Your task to perform on an android device: Open Google Chrome and open the bookmarks view Image 0: 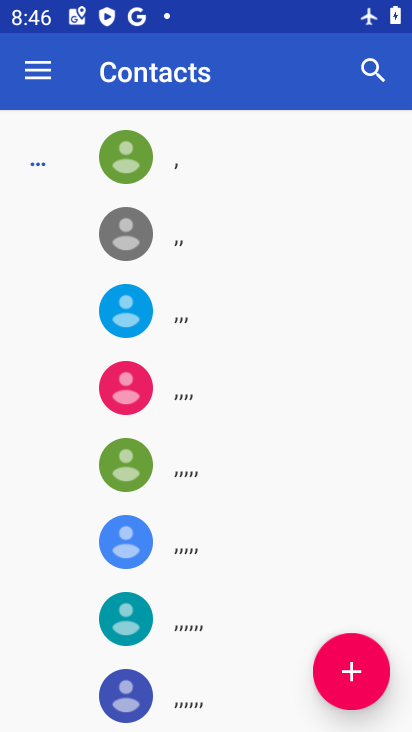
Step 0: press home button
Your task to perform on an android device: Open Google Chrome and open the bookmarks view Image 1: 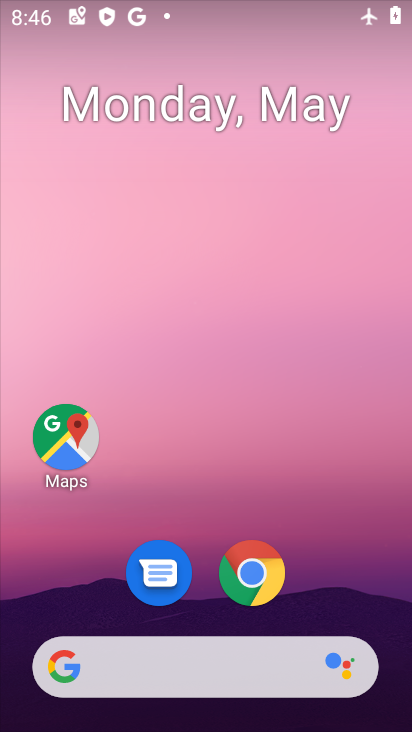
Step 1: click (249, 577)
Your task to perform on an android device: Open Google Chrome and open the bookmarks view Image 2: 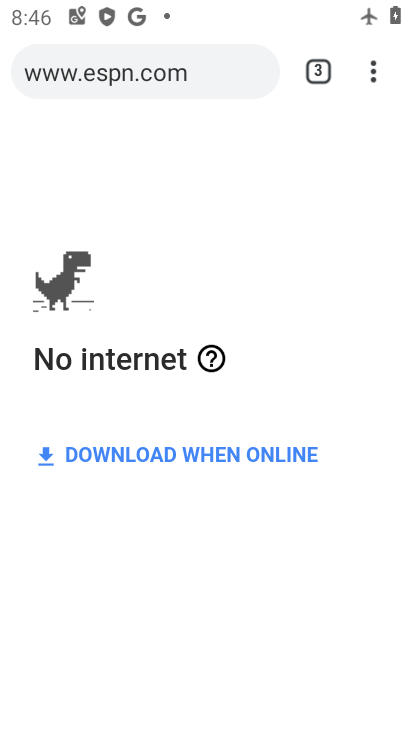
Step 2: press home button
Your task to perform on an android device: Open Google Chrome and open the bookmarks view Image 3: 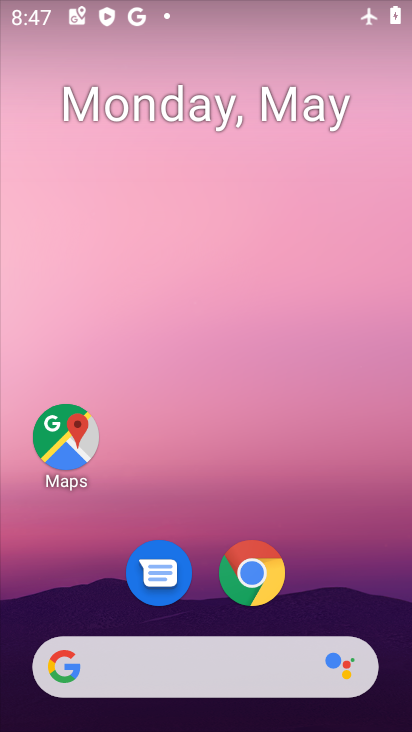
Step 3: click (260, 563)
Your task to perform on an android device: Open Google Chrome and open the bookmarks view Image 4: 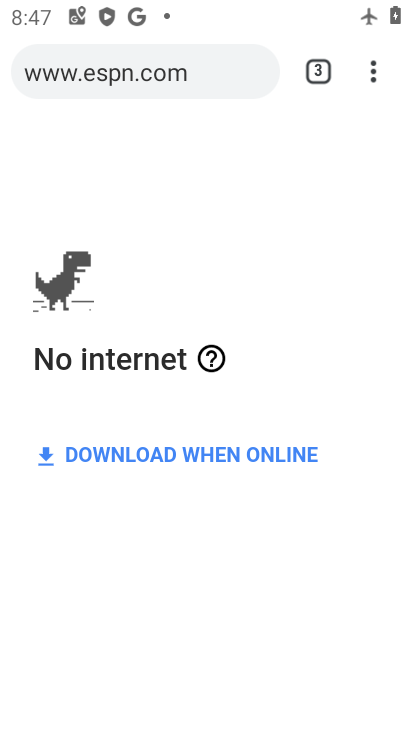
Step 4: click (382, 62)
Your task to perform on an android device: Open Google Chrome and open the bookmarks view Image 5: 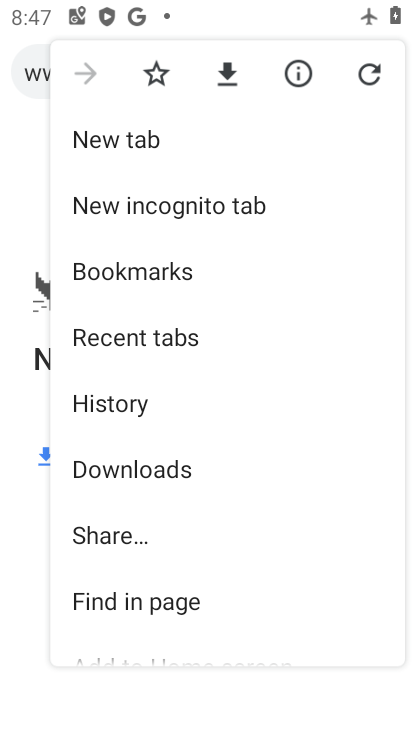
Step 5: drag from (224, 425) to (347, 172)
Your task to perform on an android device: Open Google Chrome and open the bookmarks view Image 6: 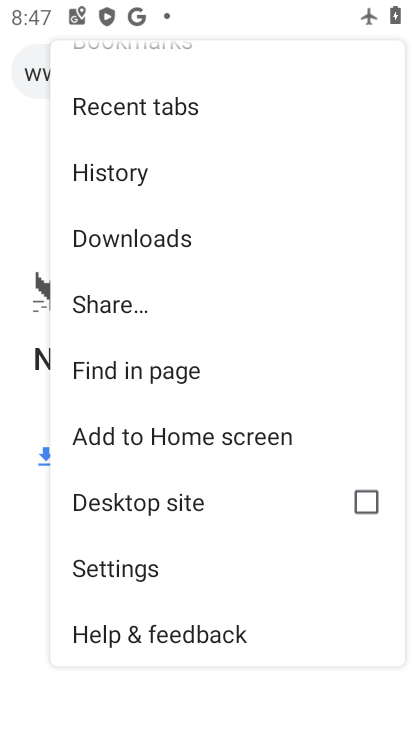
Step 6: drag from (255, 195) to (227, 536)
Your task to perform on an android device: Open Google Chrome and open the bookmarks view Image 7: 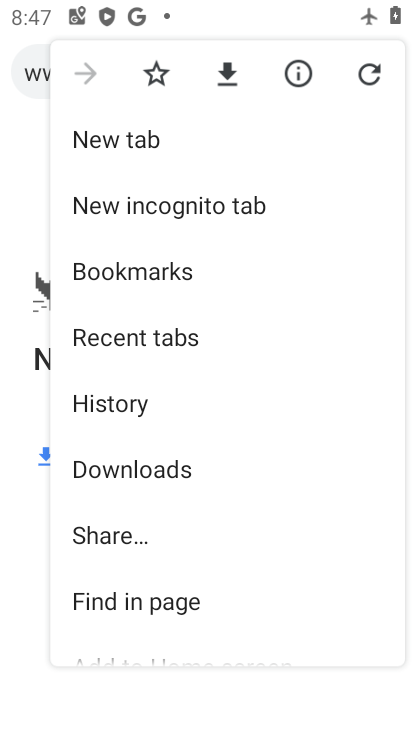
Step 7: click (153, 281)
Your task to perform on an android device: Open Google Chrome and open the bookmarks view Image 8: 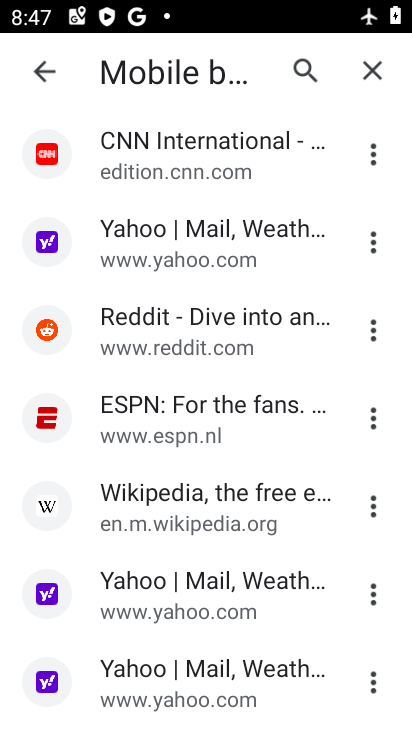
Step 8: task complete